Your task to perform on an android device: Search for pizza restaurants on Maps Image 0: 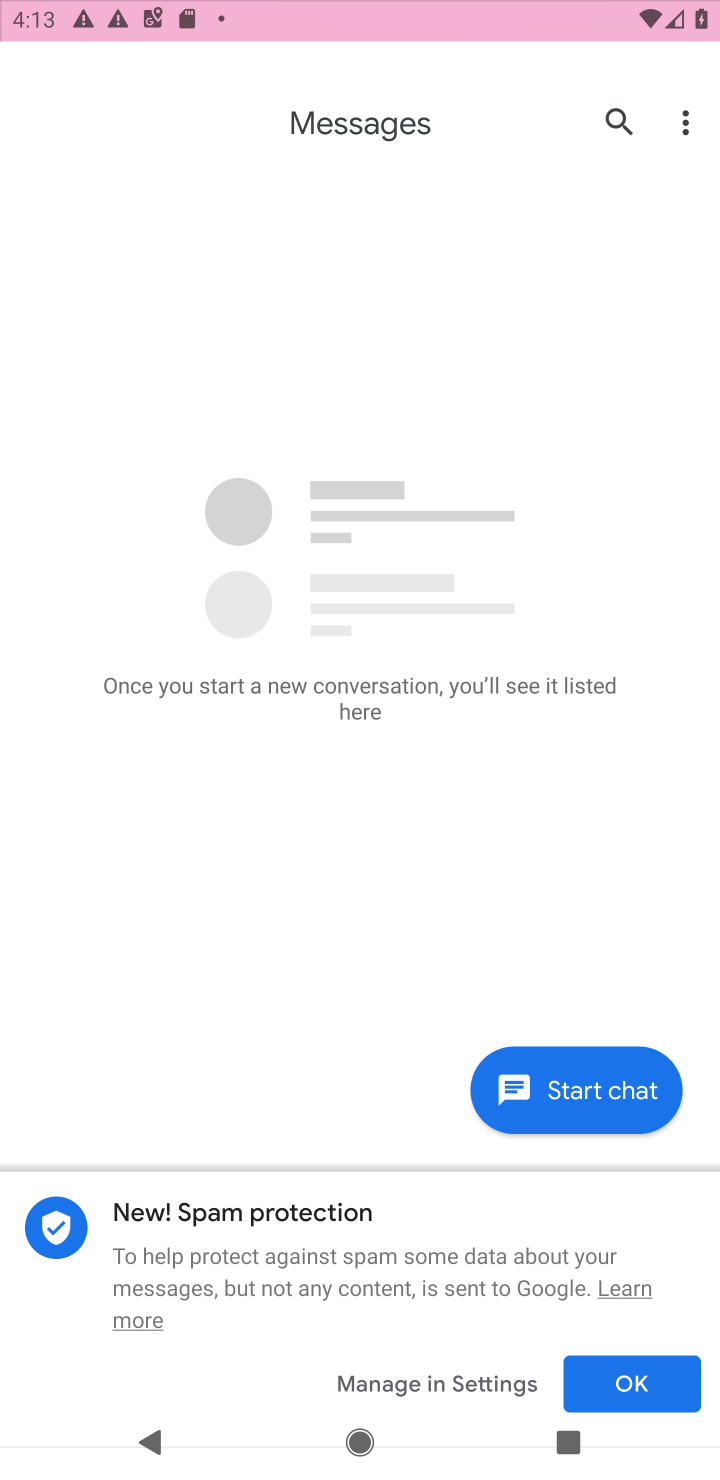
Step 0: press home button
Your task to perform on an android device: Search for pizza restaurants on Maps Image 1: 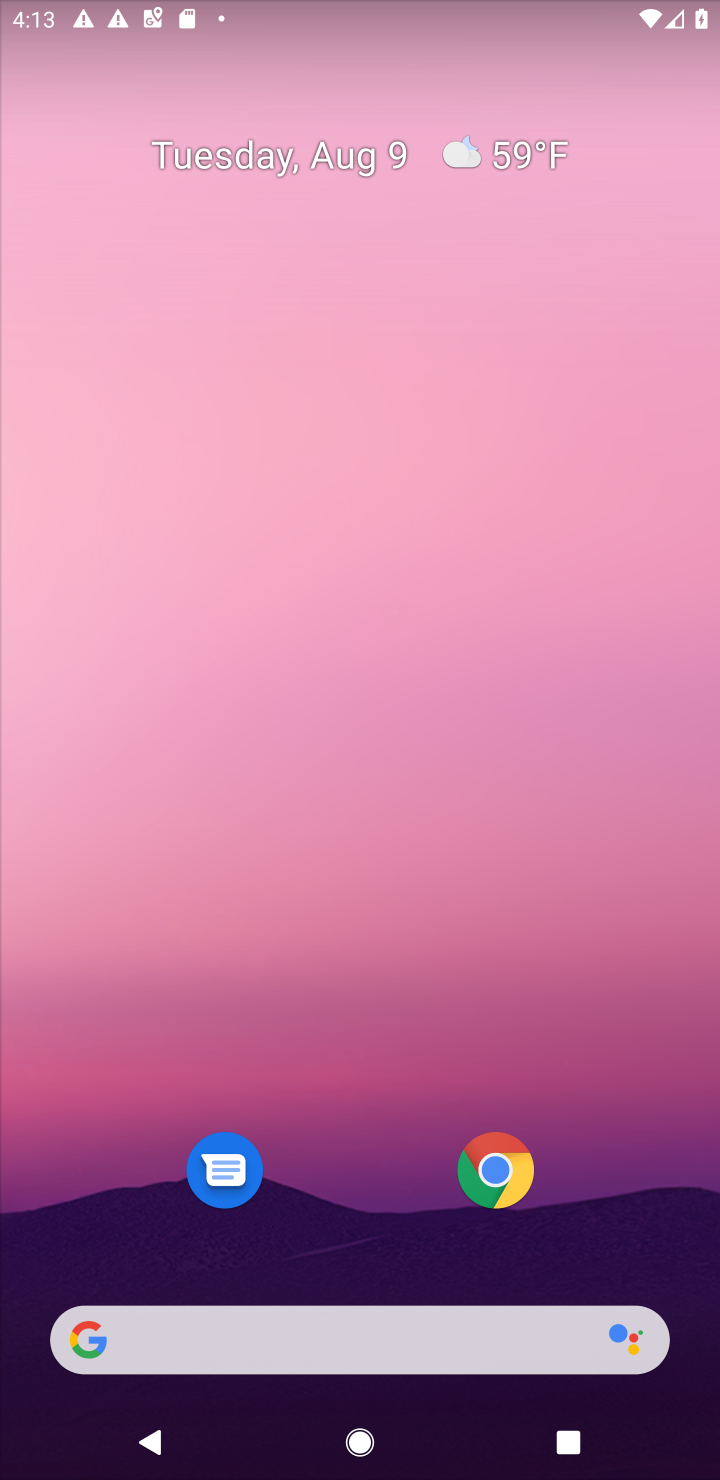
Step 1: press home button
Your task to perform on an android device: Search for pizza restaurants on Maps Image 2: 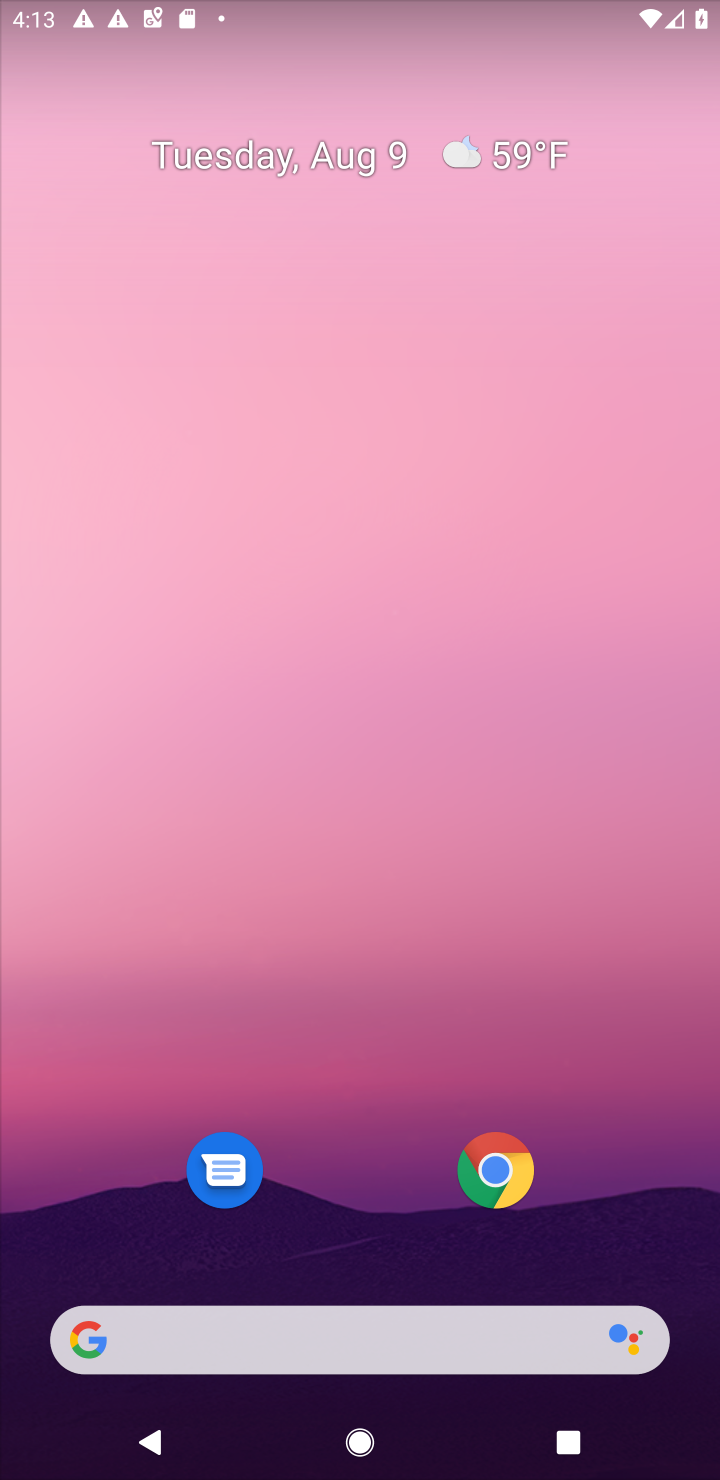
Step 2: drag from (351, 1122) to (335, 308)
Your task to perform on an android device: Search for pizza restaurants on Maps Image 3: 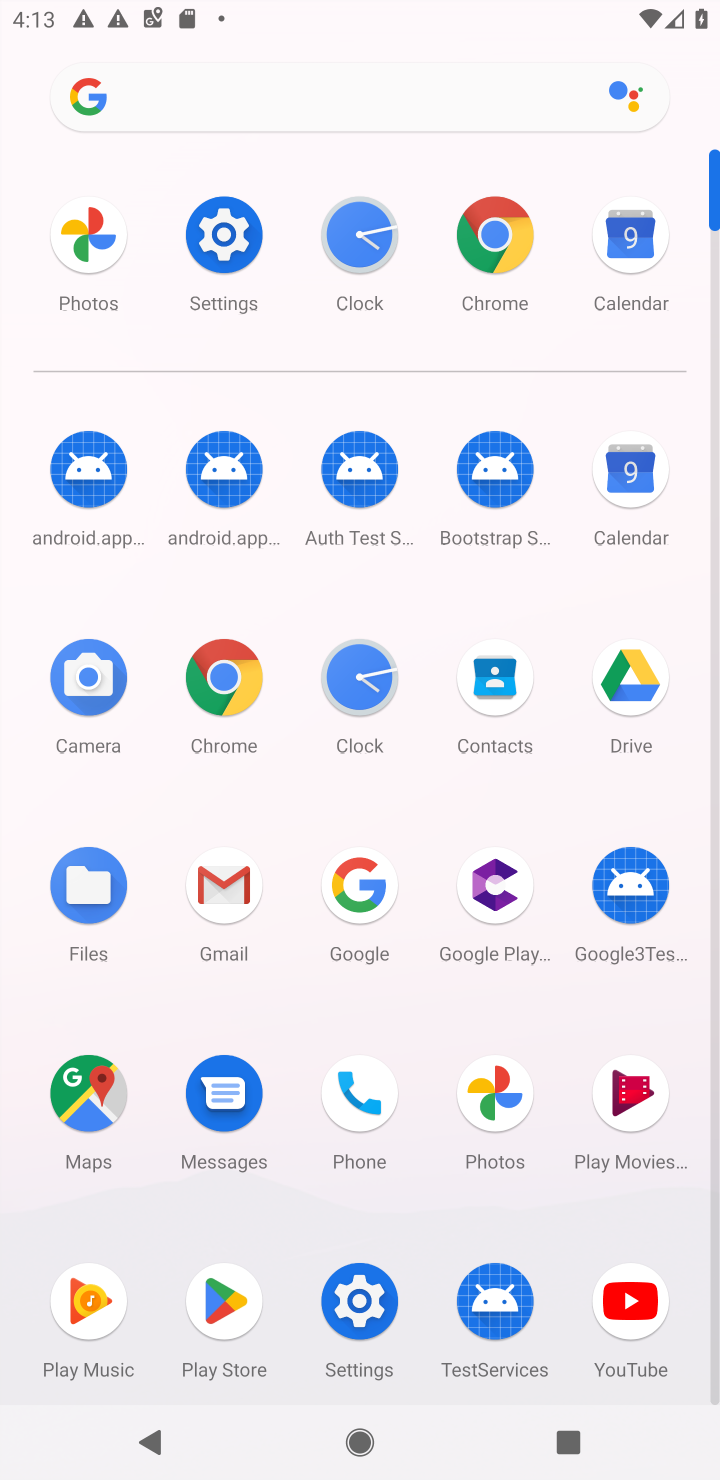
Step 3: click (102, 1108)
Your task to perform on an android device: Search for pizza restaurants on Maps Image 4: 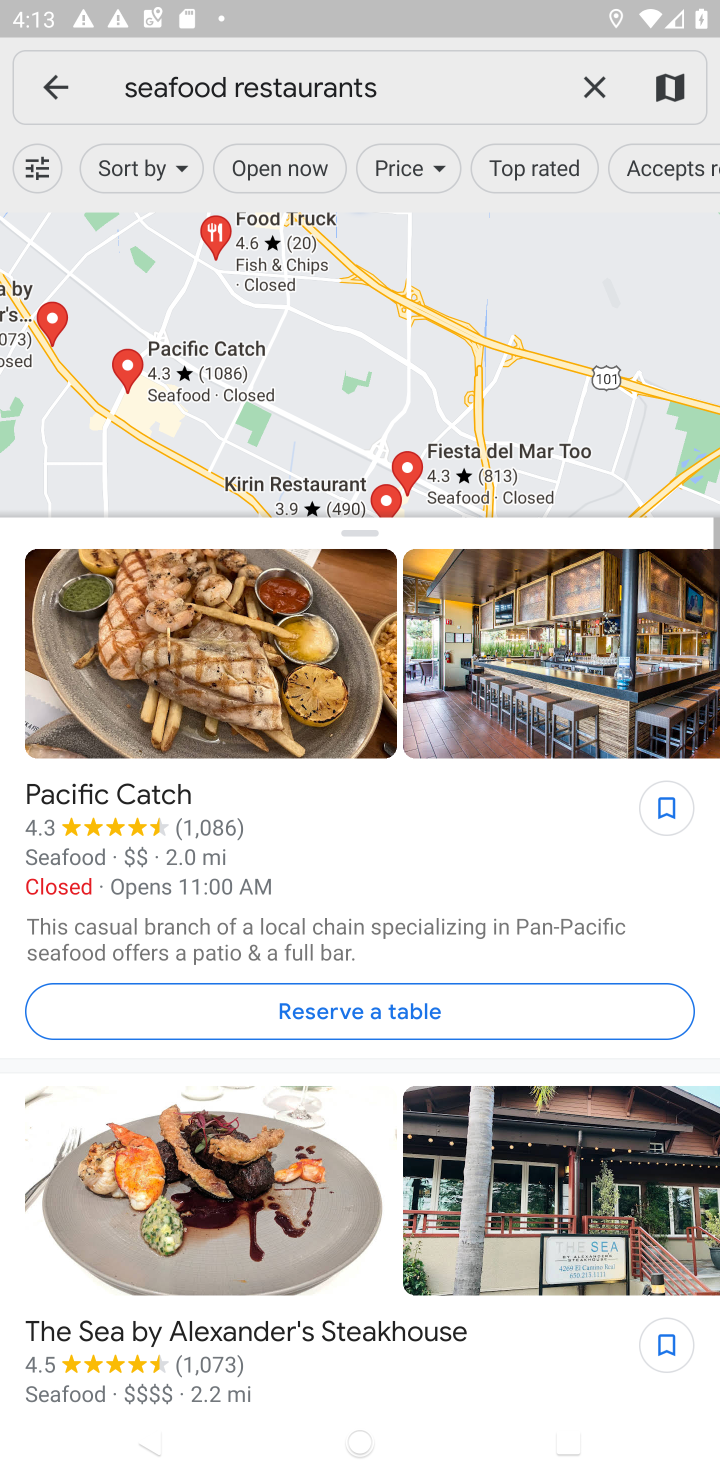
Step 4: click (591, 87)
Your task to perform on an android device: Search for pizza restaurants on Maps Image 5: 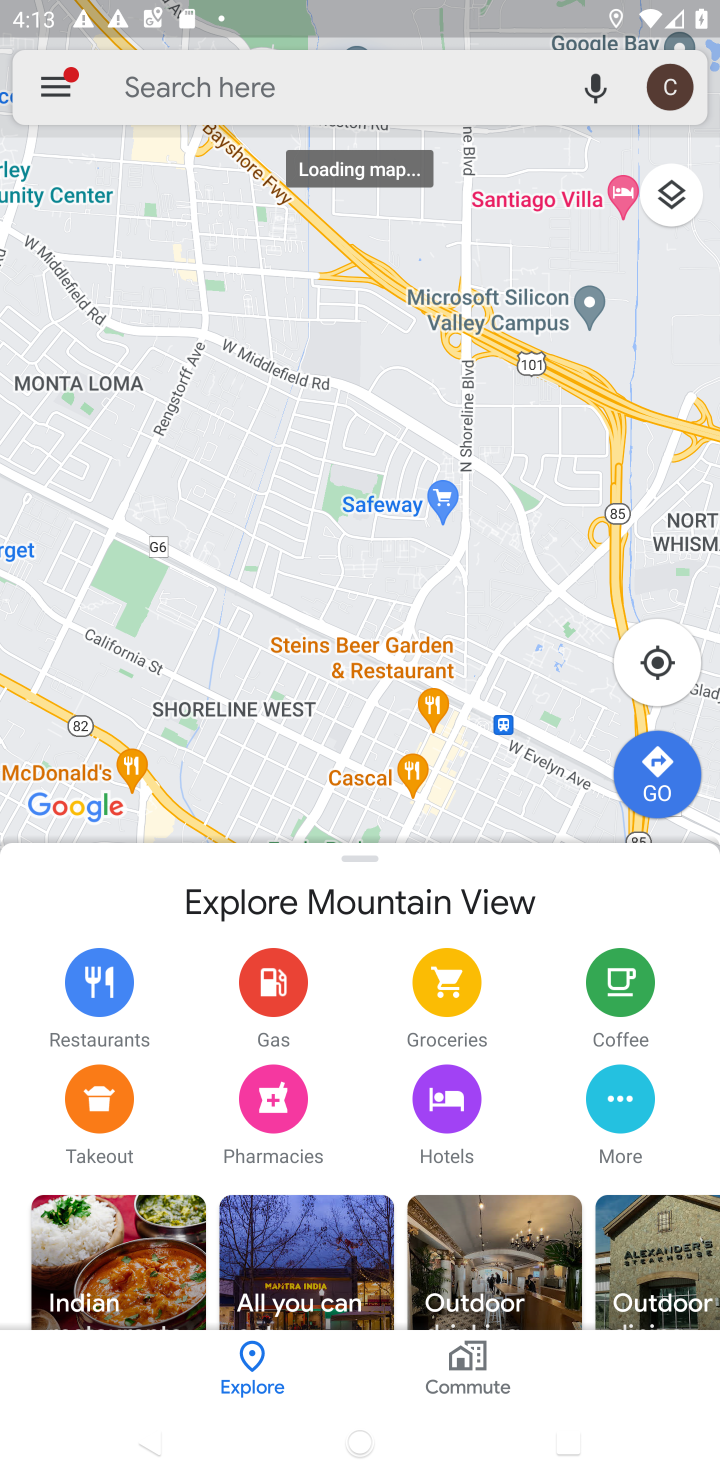
Step 5: type " pizza restaurants"
Your task to perform on an android device: Search for pizza restaurants on Maps Image 6: 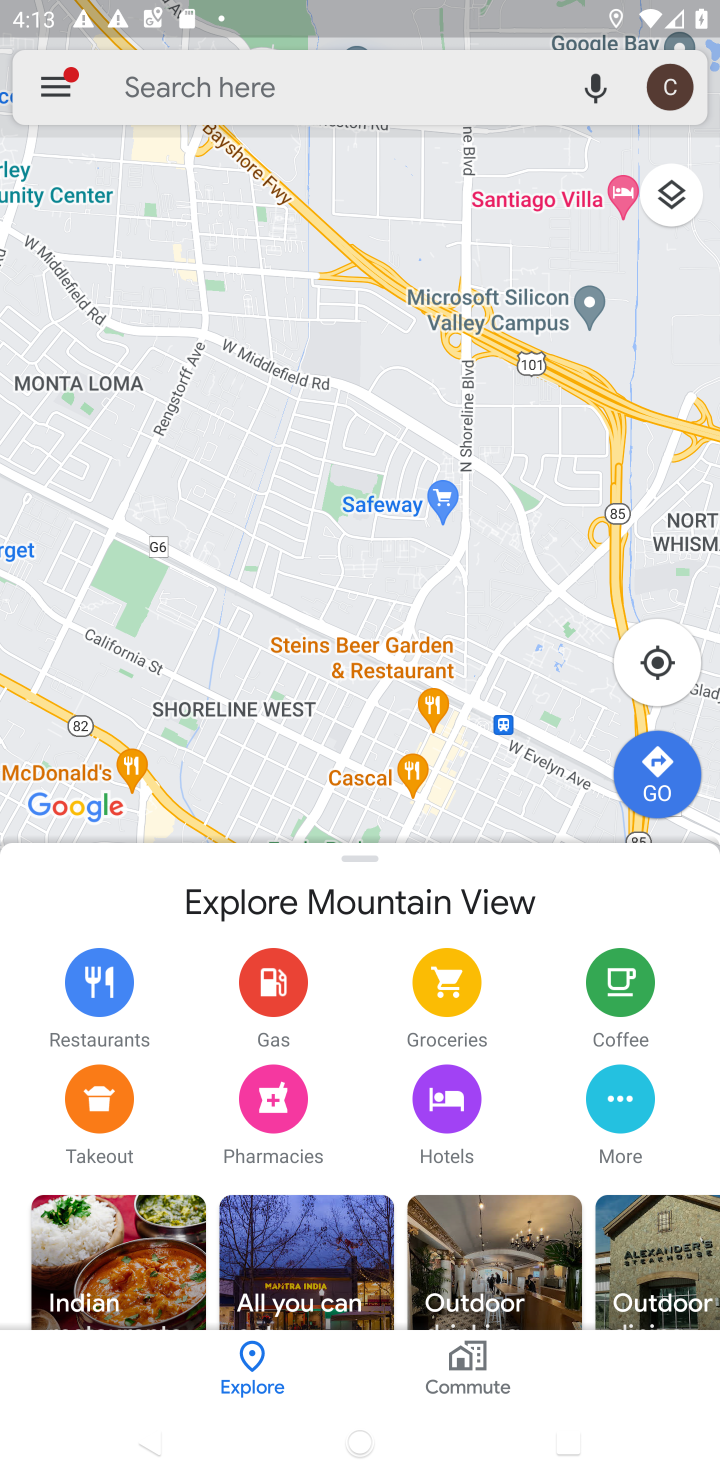
Step 6: click (194, 81)
Your task to perform on an android device: Search for pizza restaurants on Maps Image 7: 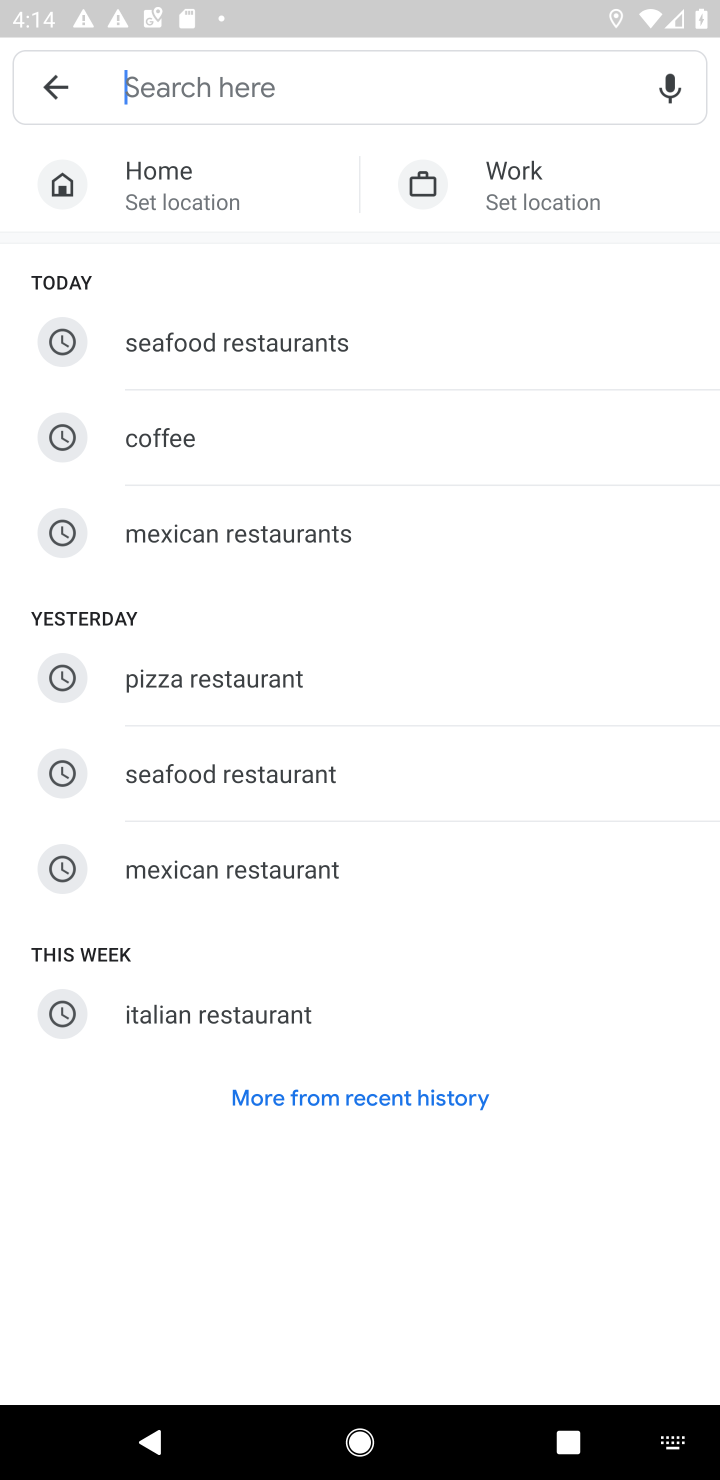
Step 7: click (211, 682)
Your task to perform on an android device: Search for pizza restaurants on Maps Image 8: 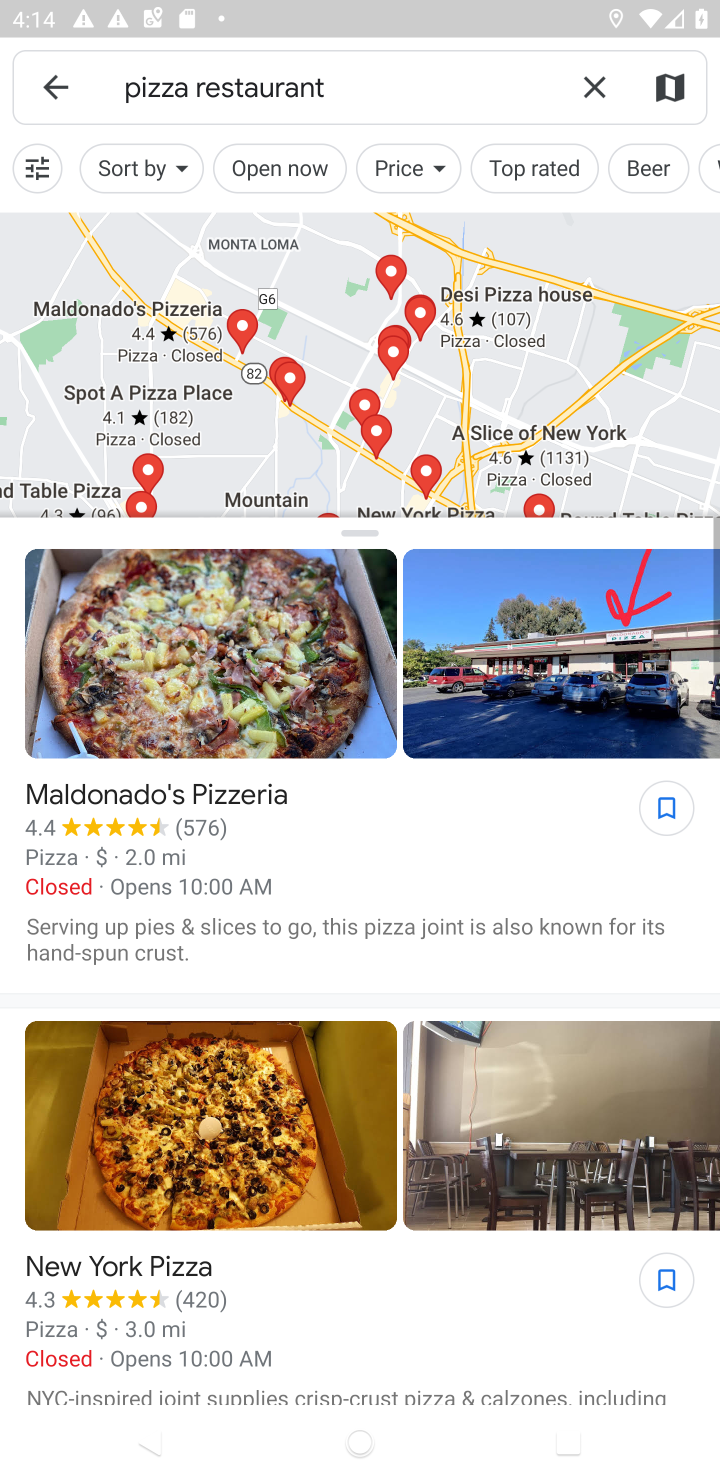
Step 8: task complete